Your task to perform on an android device: allow notifications from all sites in the chrome app Image 0: 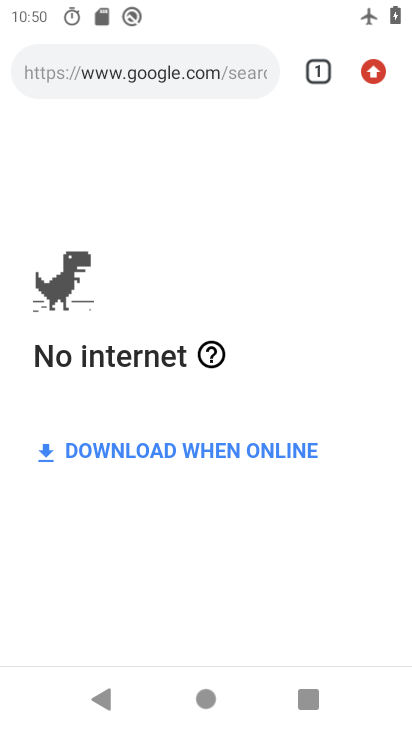
Step 0: press home button
Your task to perform on an android device: allow notifications from all sites in the chrome app Image 1: 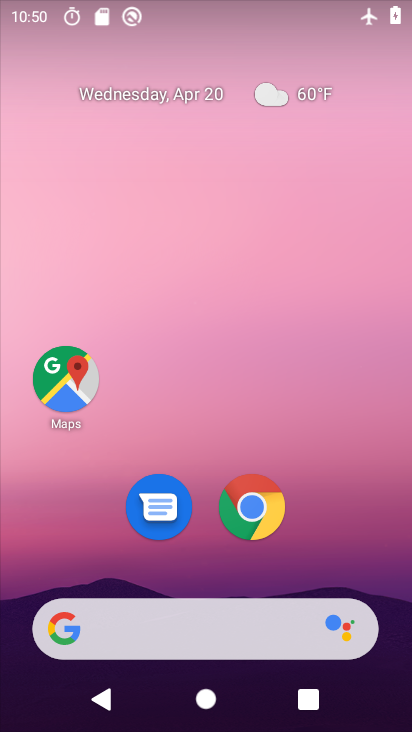
Step 1: drag from (258, 484) to (265, 33)
Your task to perform on an android device: allow notifications from all sites in the chrome app Image 2: 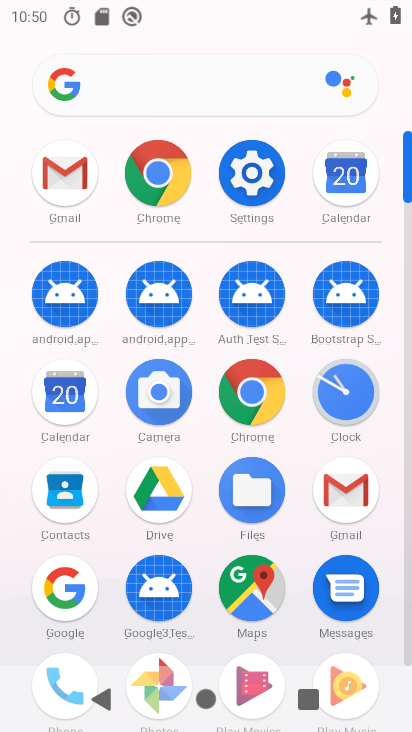
Step 2: click (160, 161)
Your task to perform on an android device: allow notifications from all sites in the chrome app Image 3: 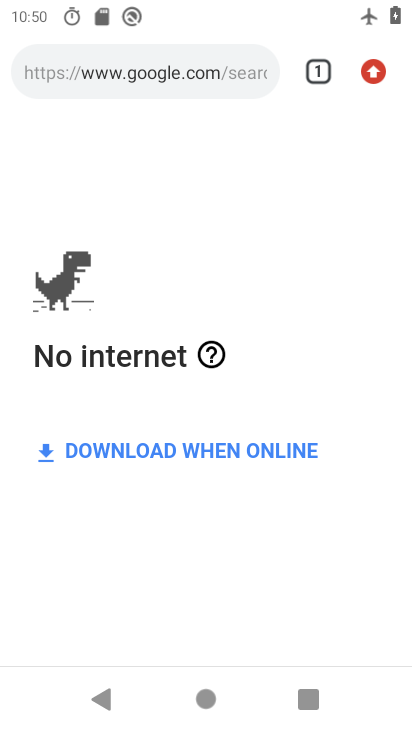
Step 3: click (367, 66)
Your task to perform on an android device: allow notifications from all sites in the chrome app Image 4: 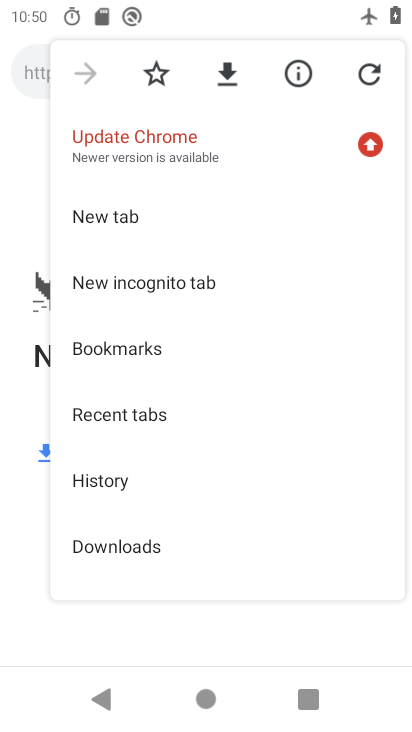
Step 4: drag from (133, 484) to (168, 111)
Your task to perform on an android device: allow notifications from all sites in the chrome app Image 5: 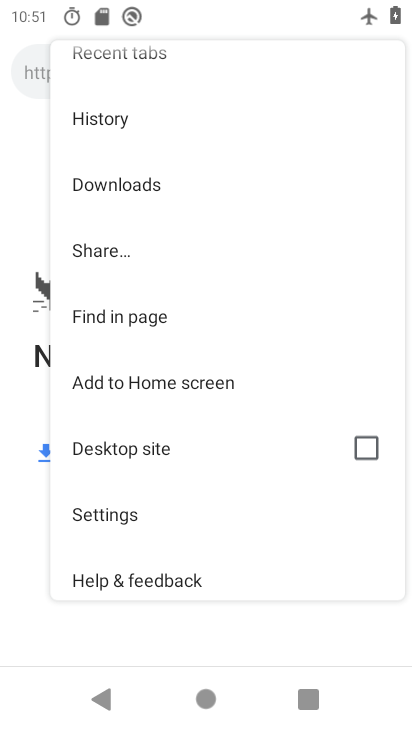
Step 5: click (120, 512)
Your task to perform on an android device: allow notifications from all sites in the chrome app Image 6: 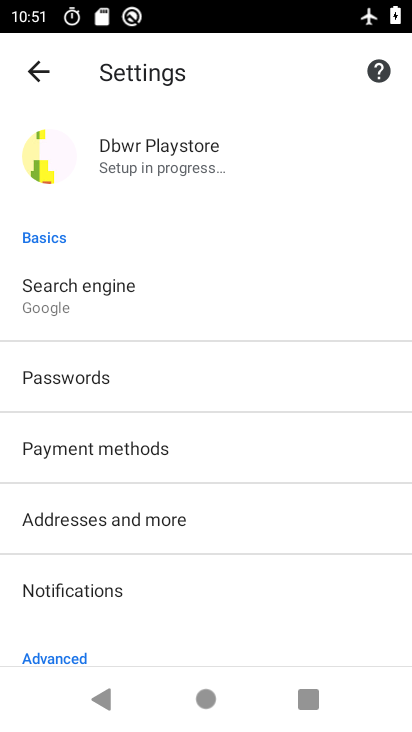
Step 6: drag from (116, 626) to (137, 206)
Your task to perform on an android device: allow notifications from all sites in the chrome app Image 7: 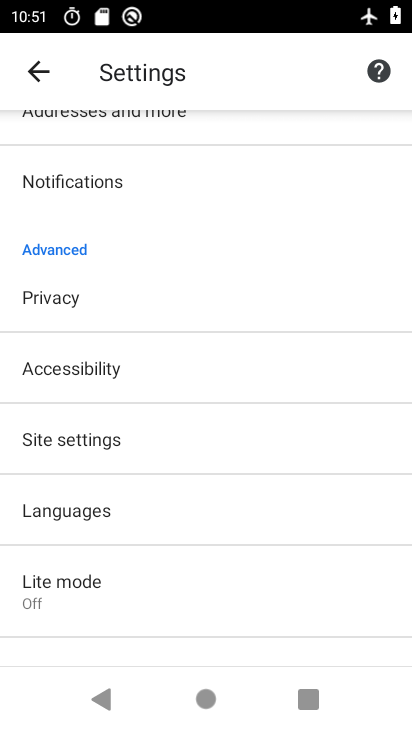
Step 7: drag from (161, 517) to (172, 292)
Your task to perform on an android device: allow notifications from all sites in the chrome app Image 8: 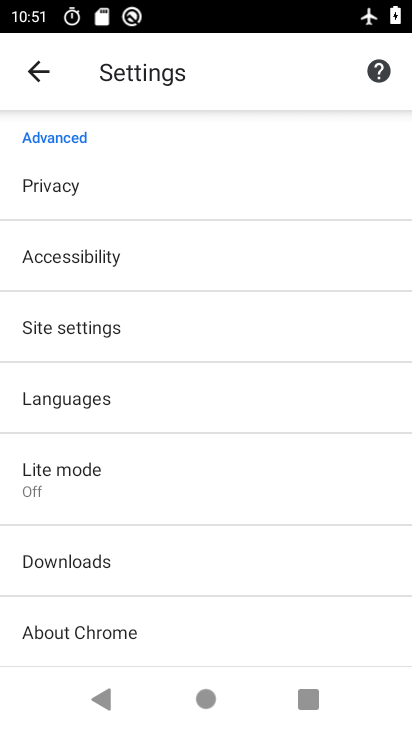
Step 8: drag from (191, 243) to (229, 577)
Your task to perform on an android device: allow notifications from all sites in the chrome app Image 9: 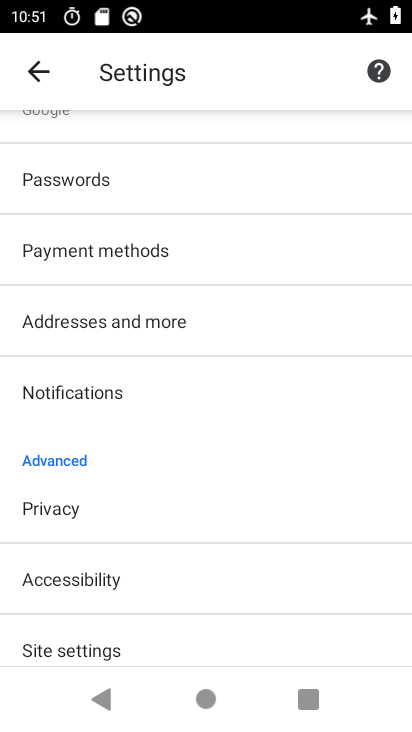
Step 9: drag from (228, 235) to (219, 476)
Your task to perform on an android device: allow notifications from all sites in the chrome app Image 10: 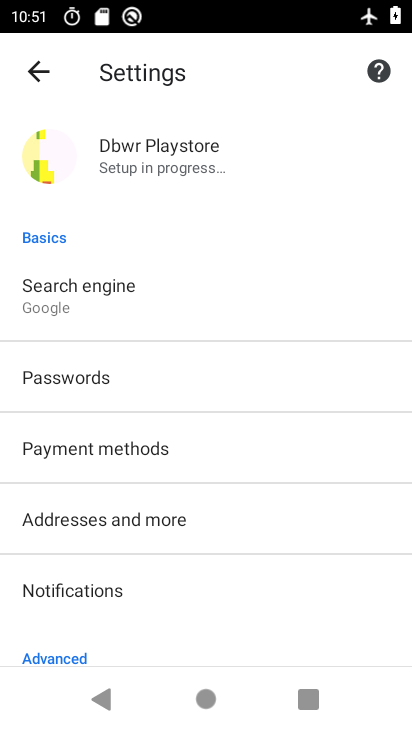
Step 10: click (60, 579)
Your task to perform on an android device: allow notifications from all sites in the chrome app Image 11: 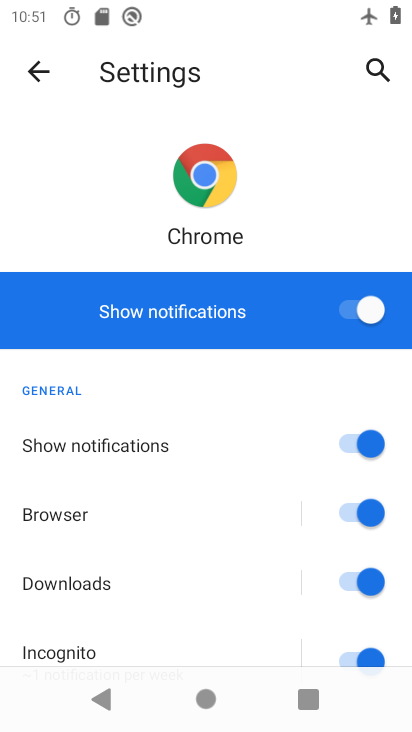
Step 11: task complete